Your task to perform on an android device: open sync settings in chrome Image 0: 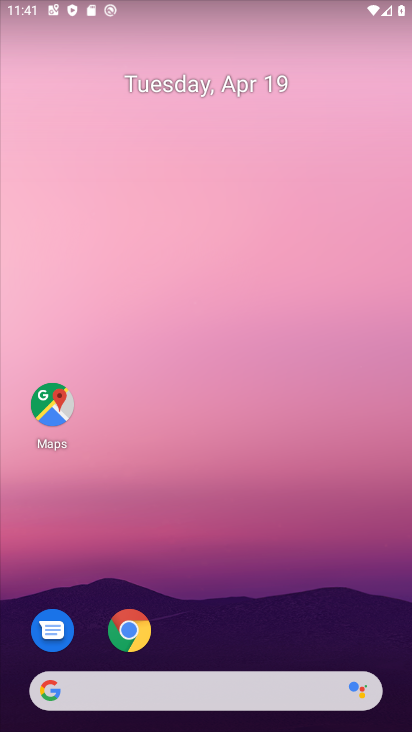
Step 0: drag from (310, 424) to (283, 75)
Your task to perform on an android device: open sync settings in chrome Image 1: 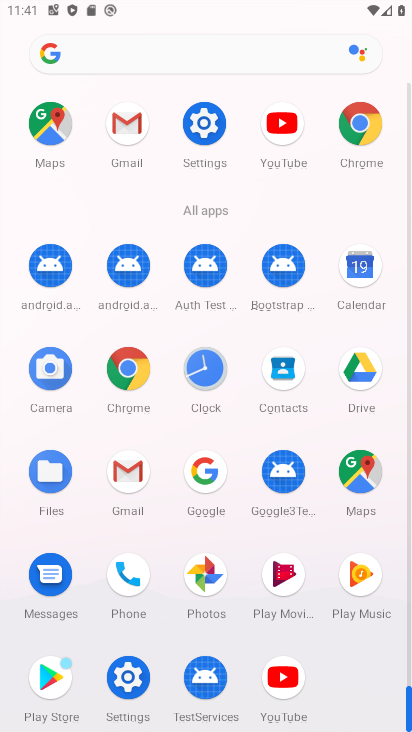
Step 1: click (138, 363)
Your task to perform on an android device: open sync settings in chrome Image 2: 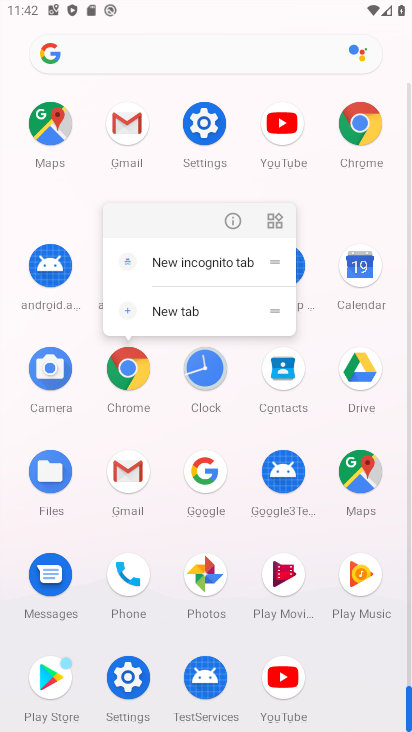
Step 2: click (135, 373)
Your task to perform on an android device: open sync settings in chrome Image 3: 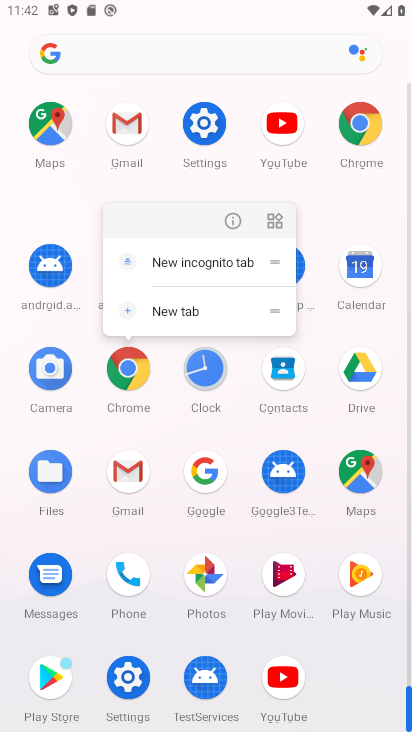
Step 3: click (132, 363)
Your task to perform on an android device: open sync settings in chrome Image 4: 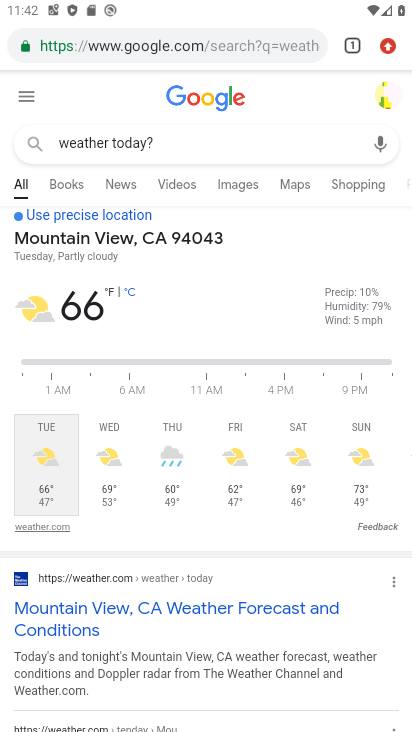
Step 4: drag from (385, 41) to (237, 566)
Your task to perform on an android device: open sync settings in chrome Image 5: 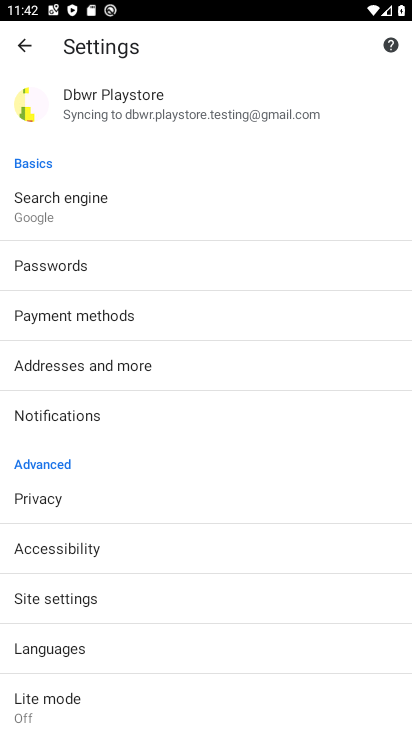
Step 5: click (80, 104)
Your task to perform on an android device: open sync settings in chrome Image 6: 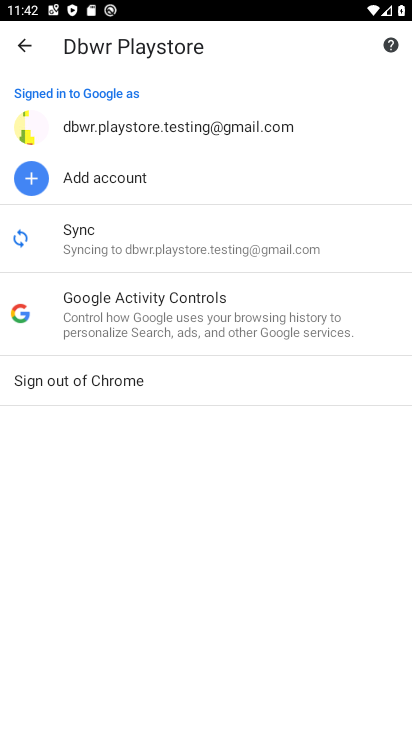
Step 6: click (84, 235)
Your task to perform on an android device: open sync settings in chrome Image 7: 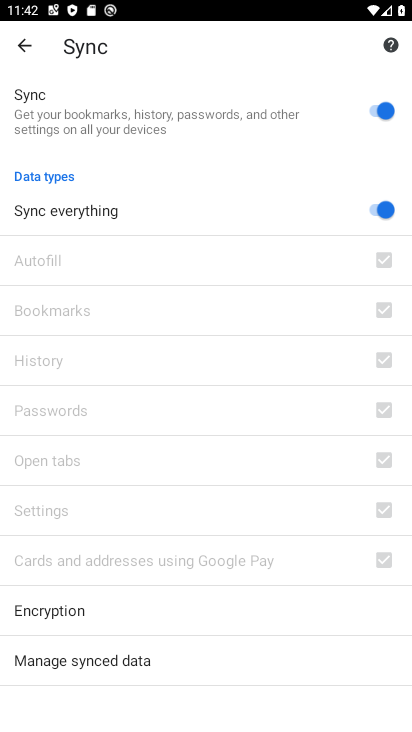
Step 7: task complete